Your task to perform on an android device: install app "Mercado Libre" Image 0: 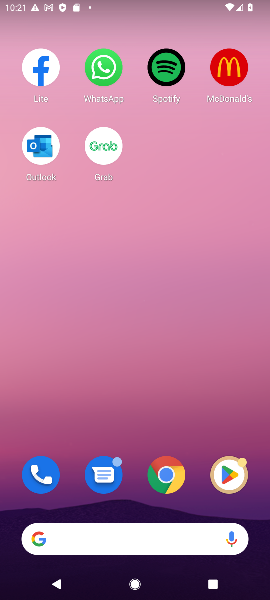
Step 0: drag from (126, 504) to (66, 47)
Your task to perform on an android device: install app "Mercado Libre" Image 1: 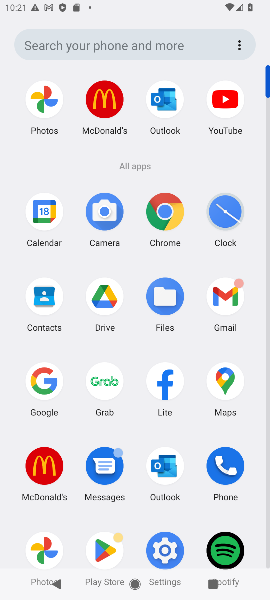
Step 1: click (101, 544)
Your task to perform on an android device: install app "Mercado Libre" Image 2: 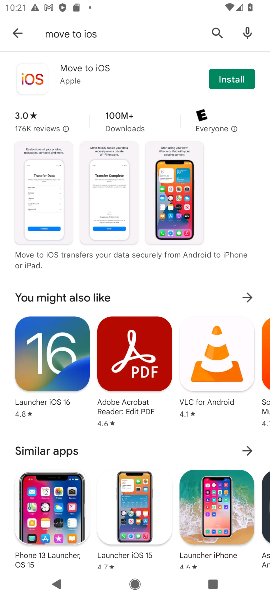
Step 2: click (21, 32)
Your task to perform on an android device: install app "Mercado Libre" Image 3: 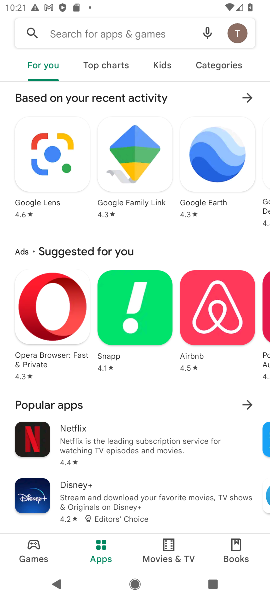
Step 3: click (71, 36)
Your task to perform on an android device: install app "Mercado Libre" Image 4: 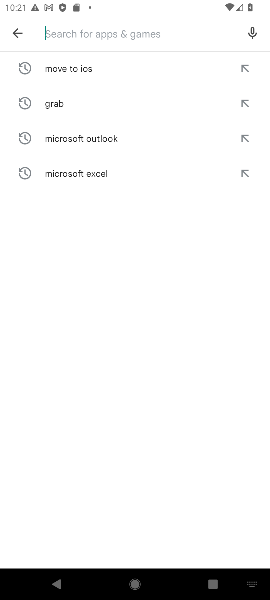
Step 4: type "Mercado Libre"
Your task to perform on an android device: install app "Mercado Libre" Image 5: 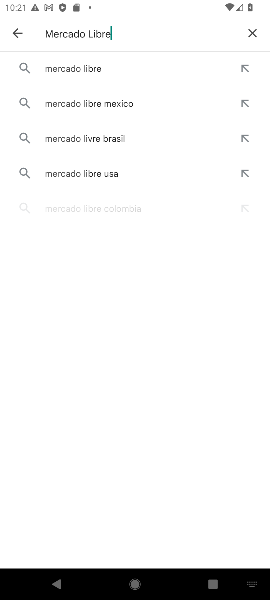
Step 5: type ""
Your task to perform on an android device: install app "Mercado Libre" Image 6: 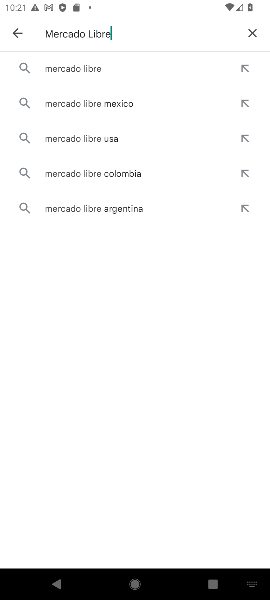
Step 6: click (99, 77)
Your task to perform on an android device: install app "Mercado Libre" Image 7: 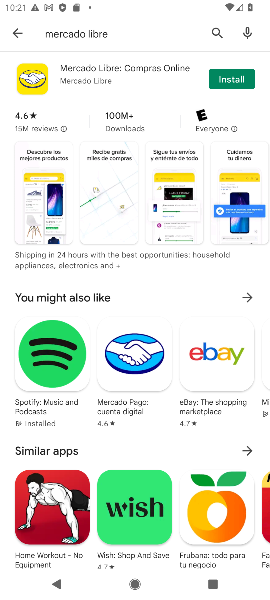
Step 7: click (229, 80)
Your task to perform on an android device: install app "Mercado Libre" Image 8: 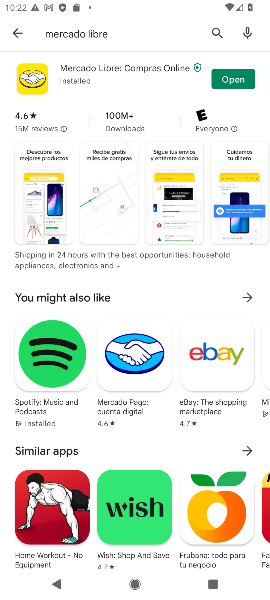
Step 8: click (243, 79)
Your task to perform on an android device: install app "Mercado Libre" Image 9: 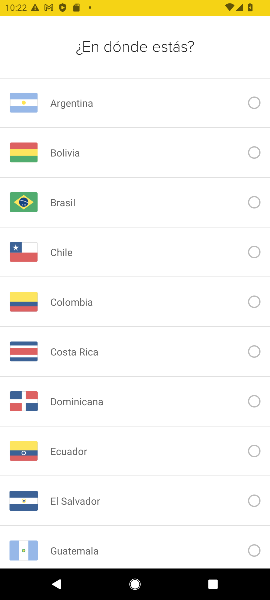
Step 9: task complete